Your task to perform on an android device: set an alarm Image 0: 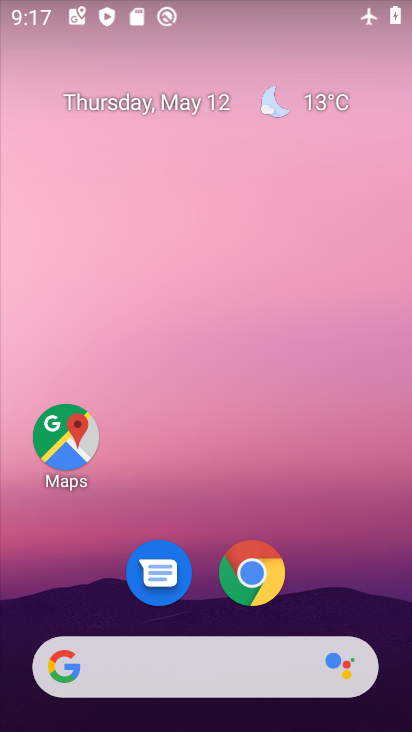
Step 0: drag from (388, 320) to (363, 214)
Your task to perform on an android device: set an alarm Image 1: 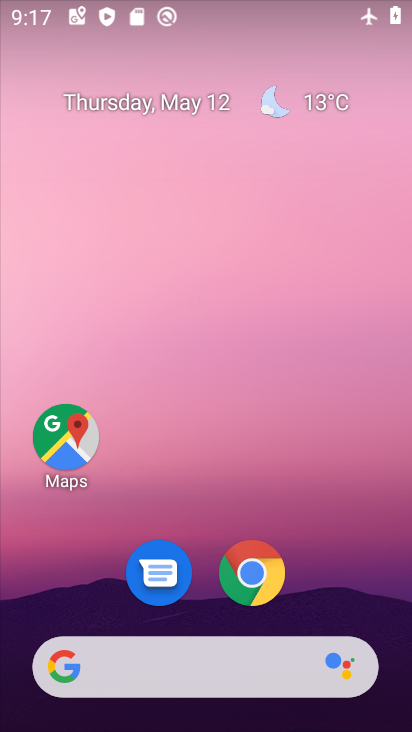
Step 1: drag from (399, 671) to (366, 180)
Your task to perform on an android device: set an alarm Image 2: 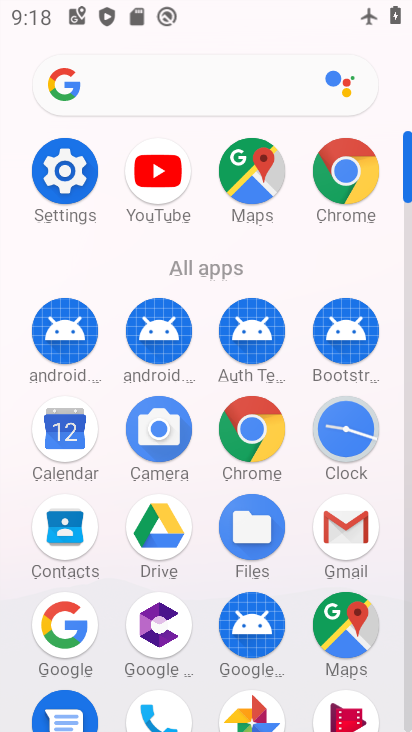
Step 2: click (346, 430)
Your task to perform on an android device: set an alarm Image 3: 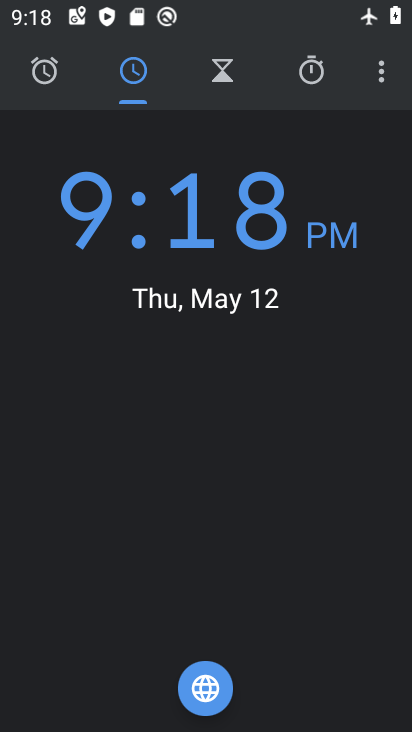
Step 3: click (51, 71)
Your task to perform on an android device: set an alarm Image 4: 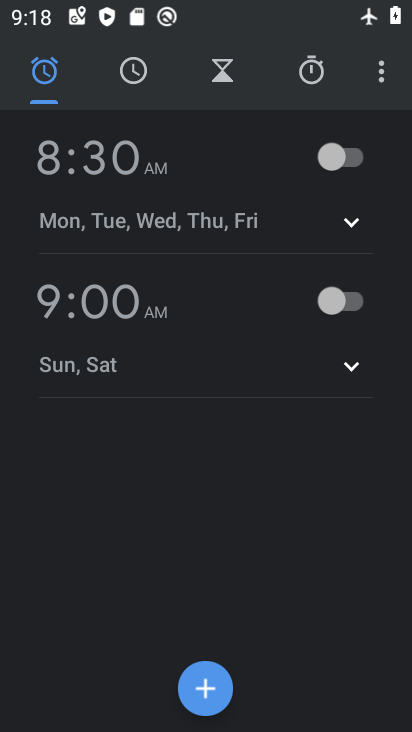
Step 4: click (348, 151)
Your task to perform on an android device: set an alarm Image 5: 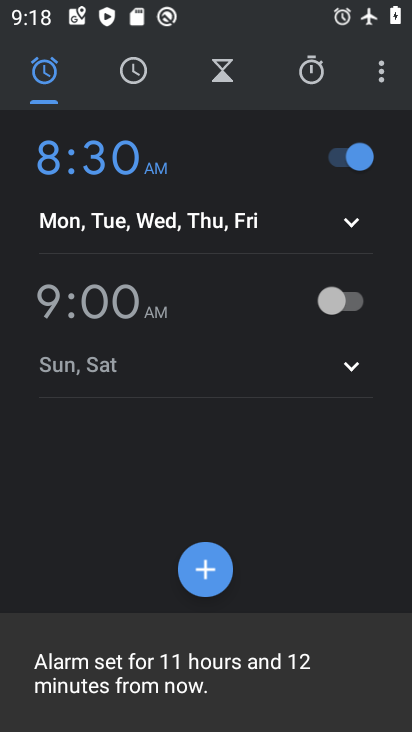
Step 5: task complete